Your task to perform on an android device: turn off location history Image 0: 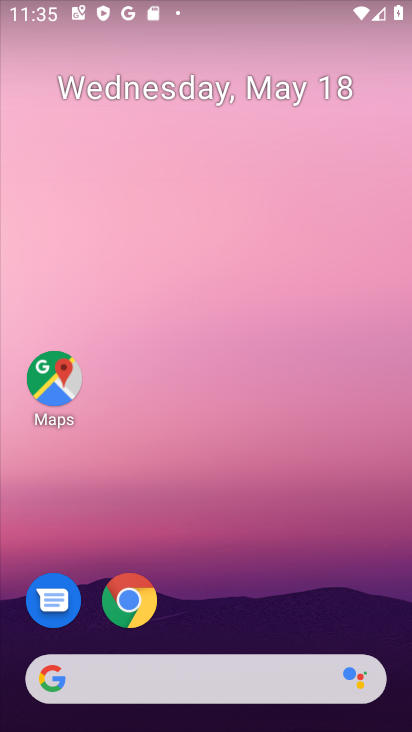
Step 0: drag from (218, 625) to (281, 8)
Your task to perform on an android device: turn off location history Image 1: 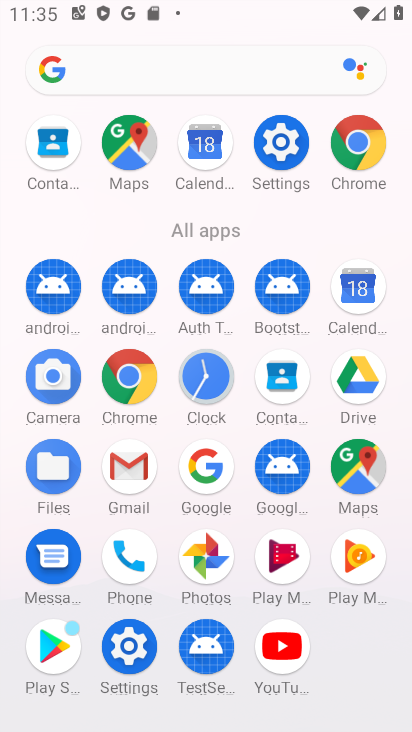
Step 1: click (129, 657)
Your task to perform on an android device: turn off location history Image 2: 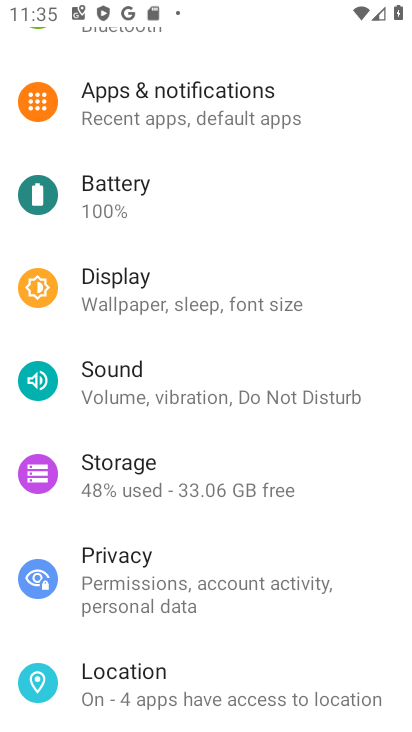
Step 2: click (153, 687)
Your task to perform on an android device: turn off location history Image 3: 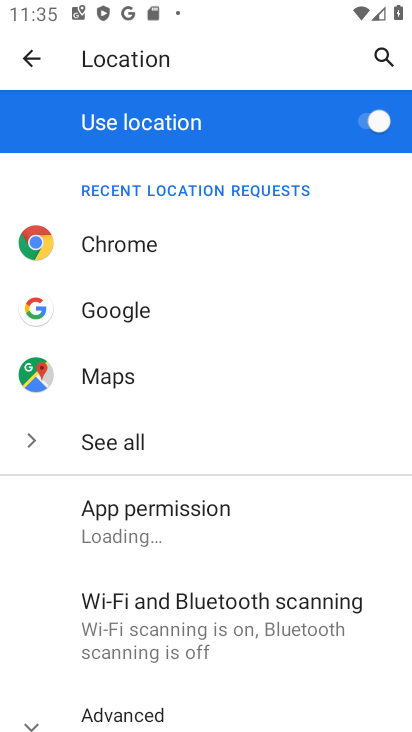
Step 3: drag from (166, 646) to (214, 415)
Your task to perform on an android device: turn off location history Image 4: 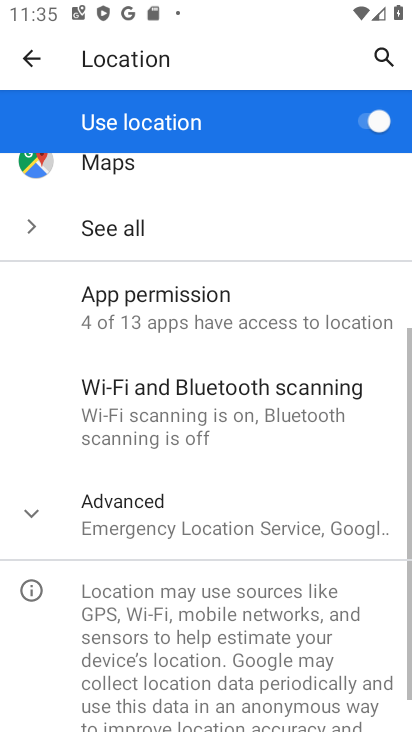
Step 4: click (161, 518)
Your task to perform on an android device: turn off location history Image 5: 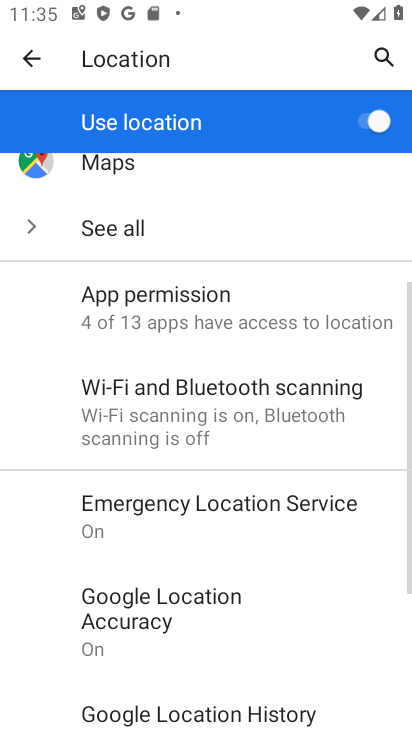
Step 5: drag from (161, 639) to (176, 468)
Your task to perform on an android device: turn off location history Image 6: 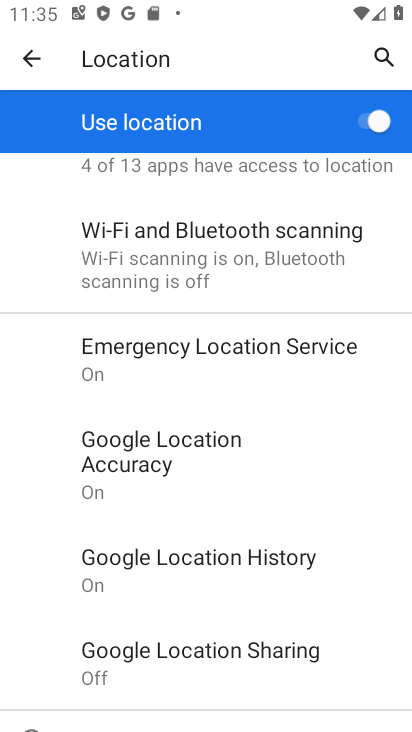
Step 6: click (155, 572)
Your task to perform on an android device: turn off location history Image 7: 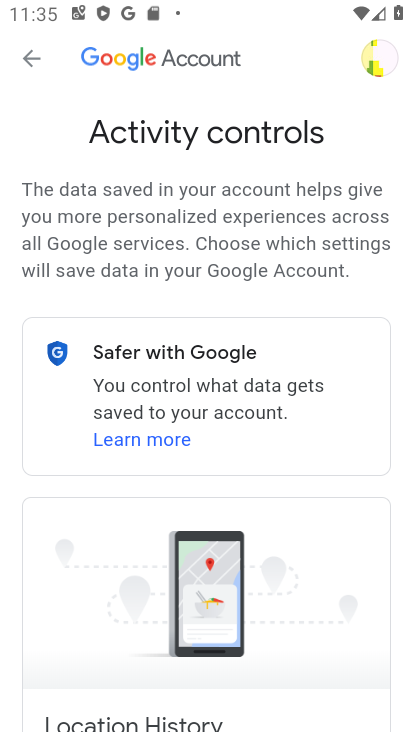
Step 7: drag from (223, 542) to (279, 185)
Your task to perform on an android device: turn off location history Image 8: 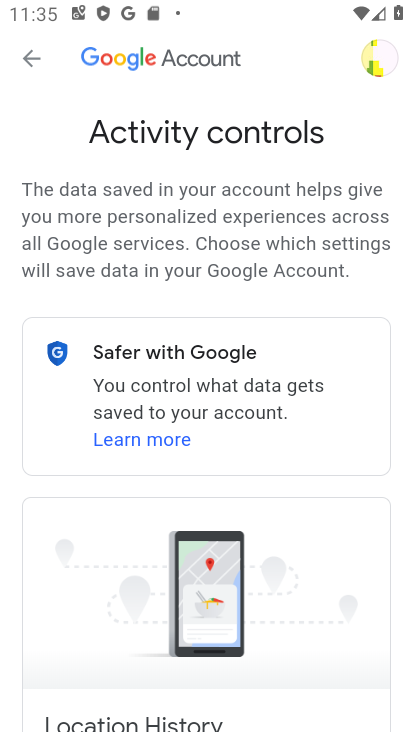
Step 8: drag from (211, 614) to (239, 222)
Your task to perform on an android device: turn off location history Image 9: 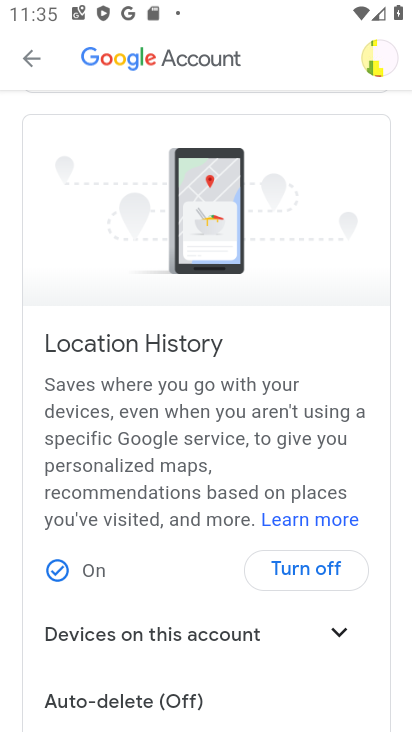
Step 9: click (301, 569)
Your task to perform on an android device: turn off location history Image 10: 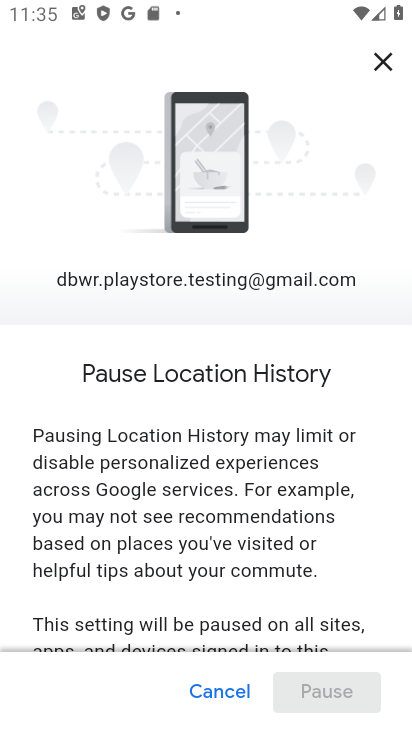
Step 10: drag from (266, 634) to (299, 266)
Your task to perform on an android device: turn off location history Image 11: 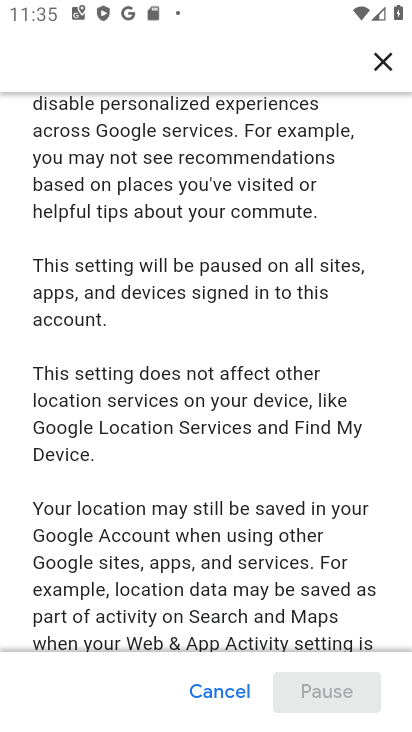
Step 11: drag from (235, 571) to (299, 20)
Your task to perform on an android device: turn off location history Image 12: 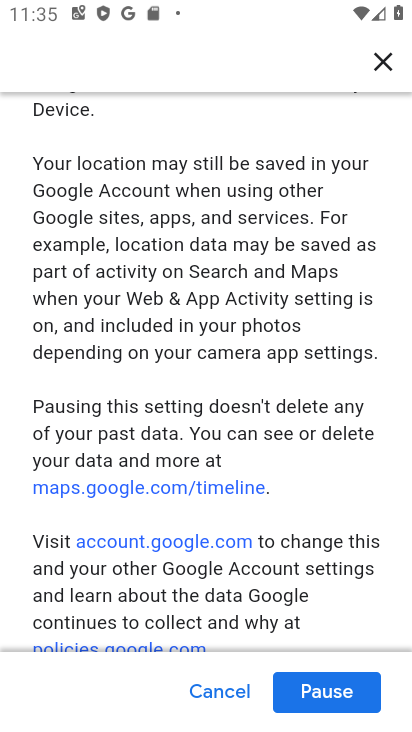
Step 12: click (323, 697)
Your task to perform on an android device: turn off location history Image 13: 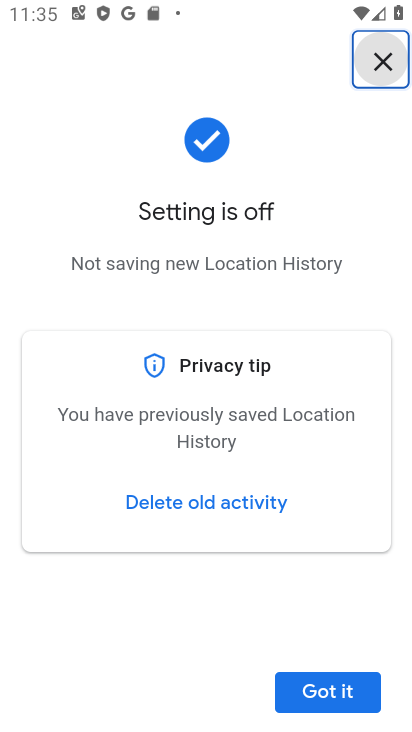
Step 13: click (322, 698)
Your task to perform on an android device: turn off location history Image 14: 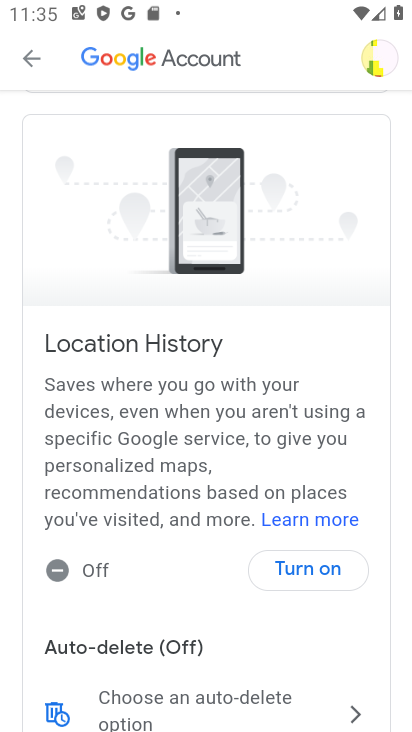
Step 14: task complete